Your task to perform on an android device: Open Yahoo.com Image 0: 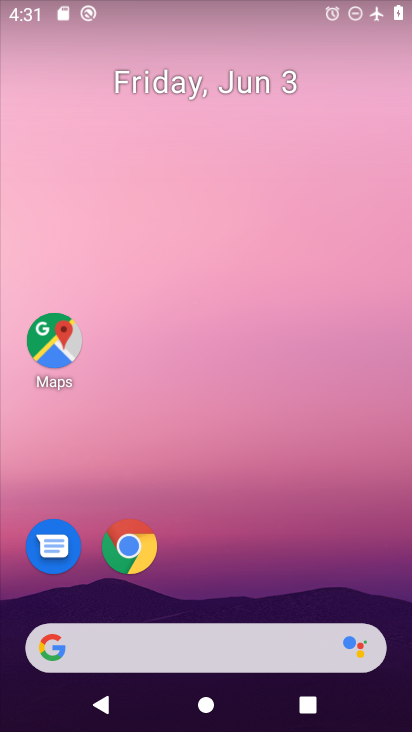
Step 0: click (270, 649)
Your task to perform on an android device: Open Yahoo.com Image 1: 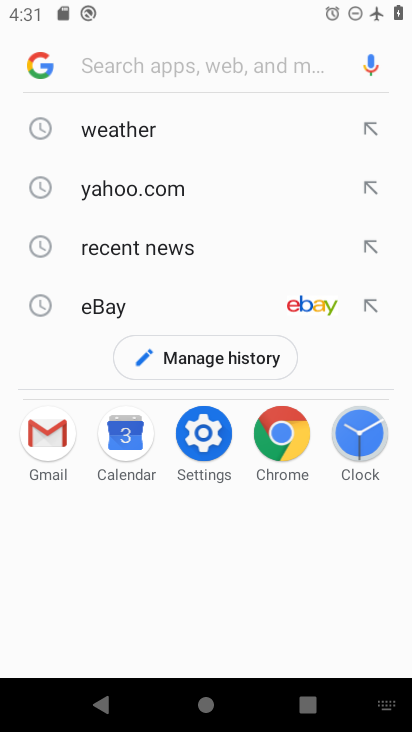
Step 1: type "yahoo.com"
Your task to perform on an android device: Open Yahoo.com Image 2: 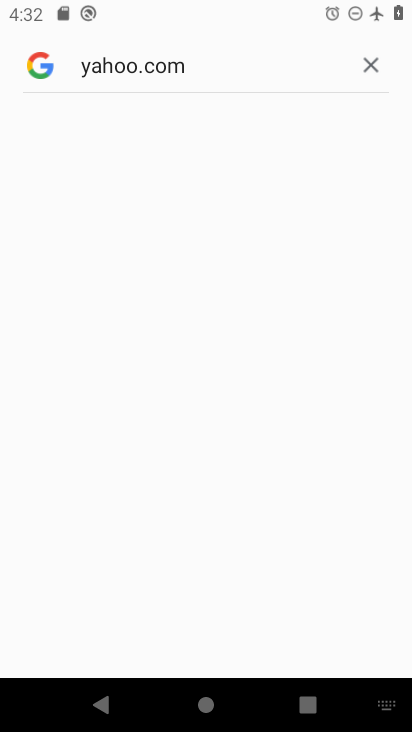
Step 2: task complete